Your task to perform on an android device: open a bookmark in the chrome app Image 0: 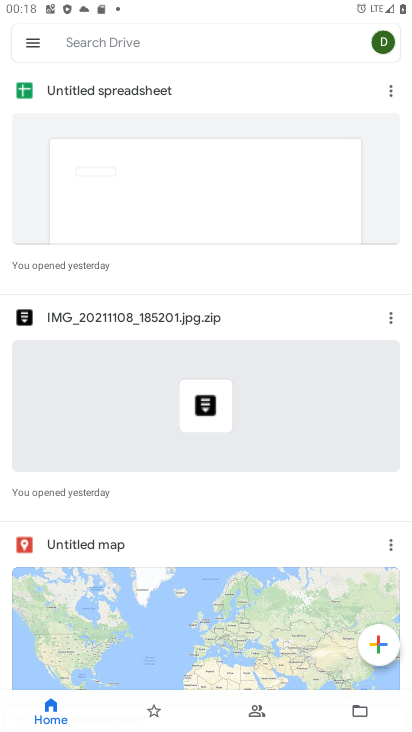
Step 0: press home button
Your task to perform on an android device: open a bookmark in the chrome app Image 1: 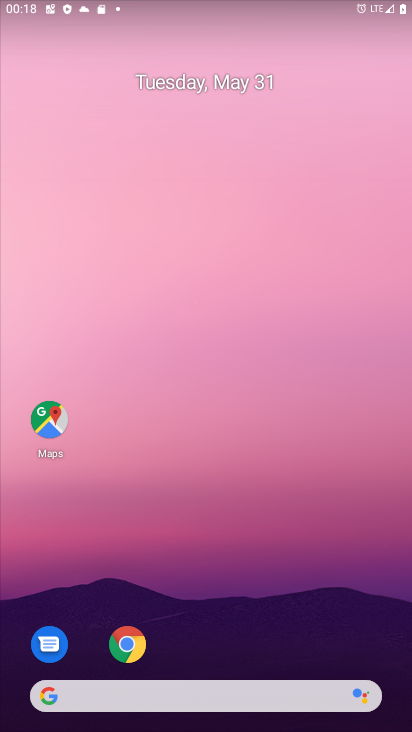
Step 1: click (127, 645)
Your task to perform on an android device: open a bookmark in the chrome app Image 2: 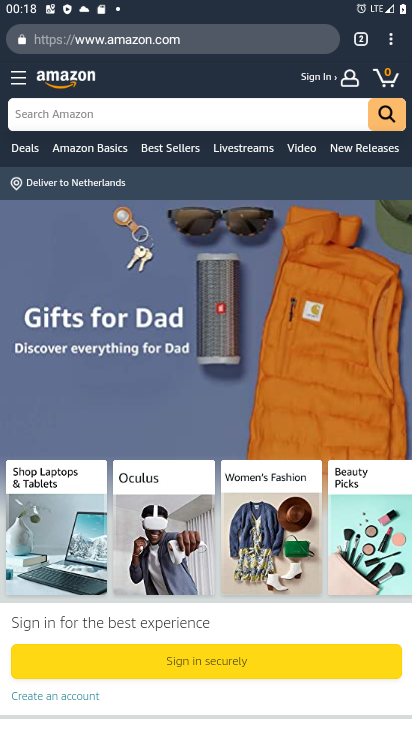
Step 2: click (393, 47)
Your task to perform on an android device: open a bookmark in the chrome app Image 3: 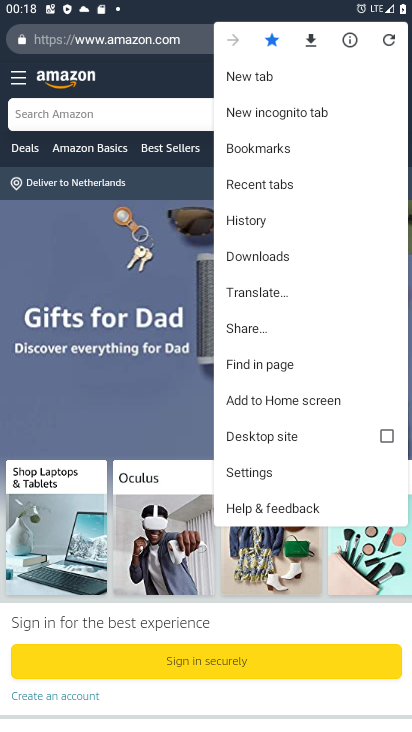
Step 3: click (271, 152)
Your task to perform on an android device: open a bookmark in the chrome app Image 4: 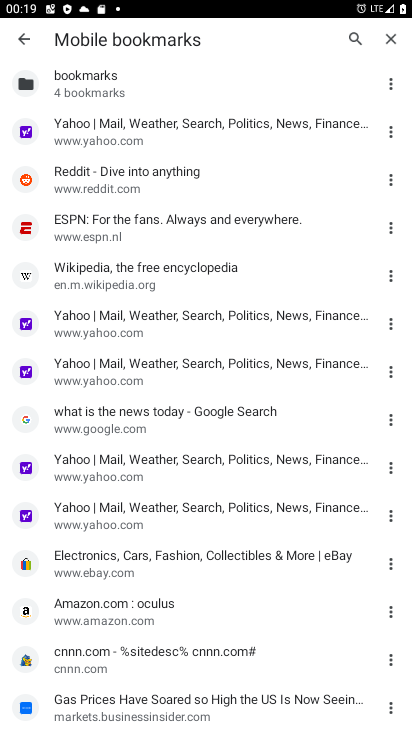
Step 4: task complete